Your task to perform on an android device: Search for pizza restaurants on Maps Image 0: 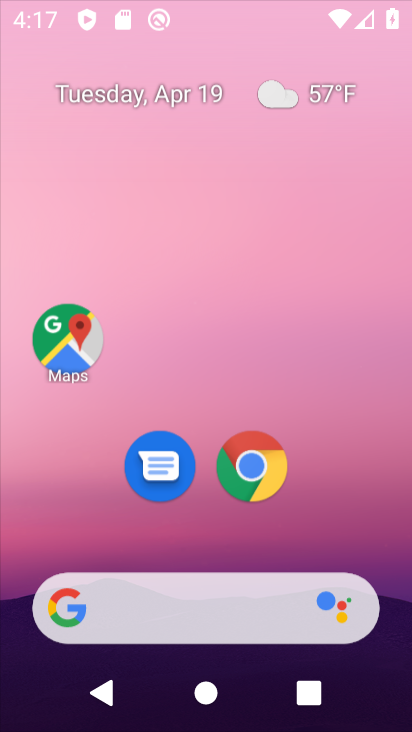
Step 0: click (261, 16)
Your task to perform on an android device: Search for pizza restaurants on Maps Image 1: 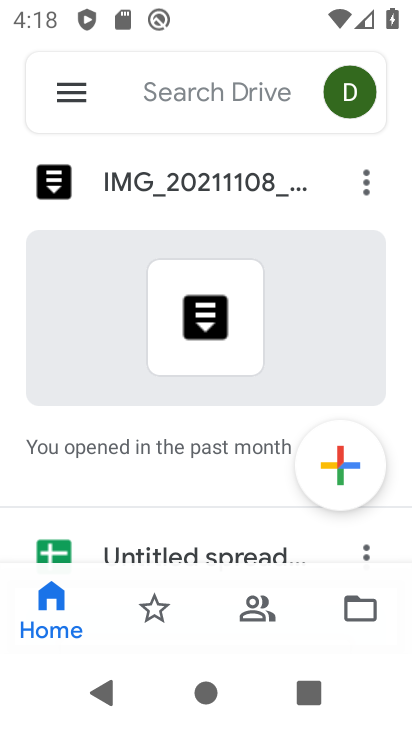
Step 1: press home button
Your task to perform on an android device: Search for pizza restaurants on Maps Image 2: 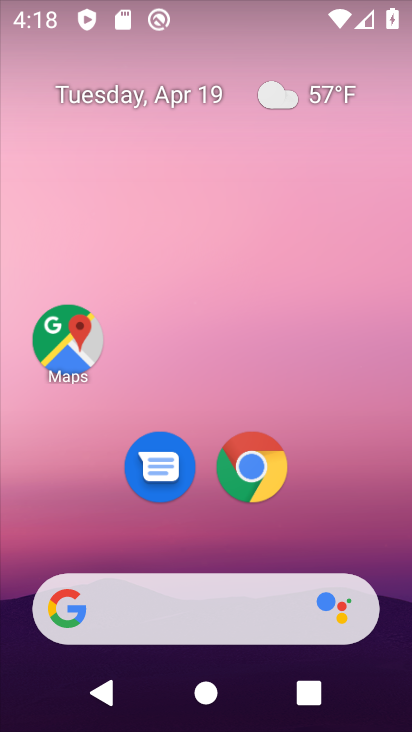
Step 2: click (76, 350)
Your task to perform on an android device: Search for pizza restaurants on Maps Image 3: 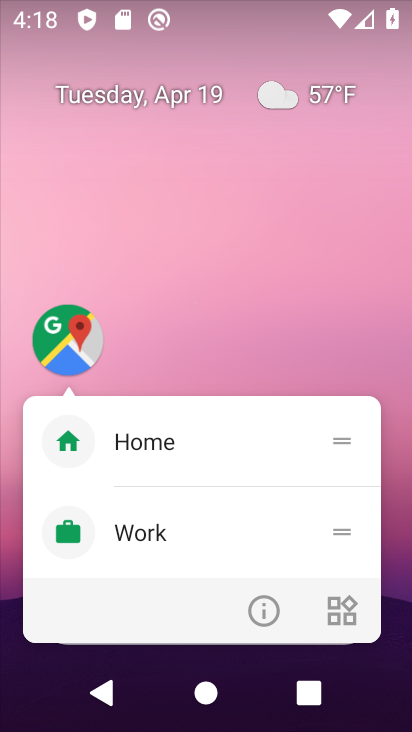
Step 3: click (75, 350)
Your task to perform on an android device: Search for pizza restaurants on Maps Image 4: 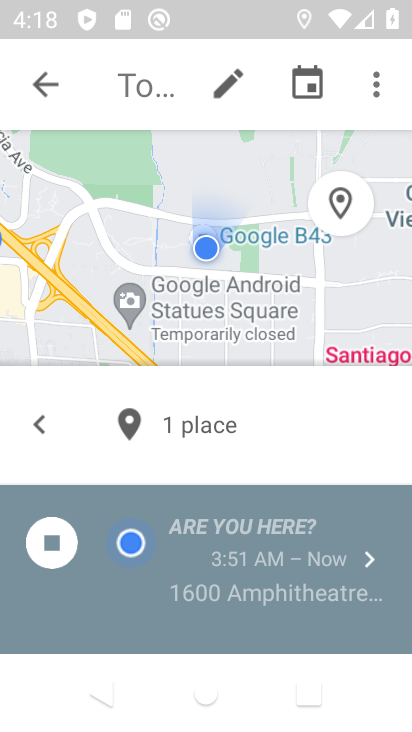
Step 4: click (52, 93)
Your task to perform on an android device: Search for pizza restaurants on Maps Image 5: 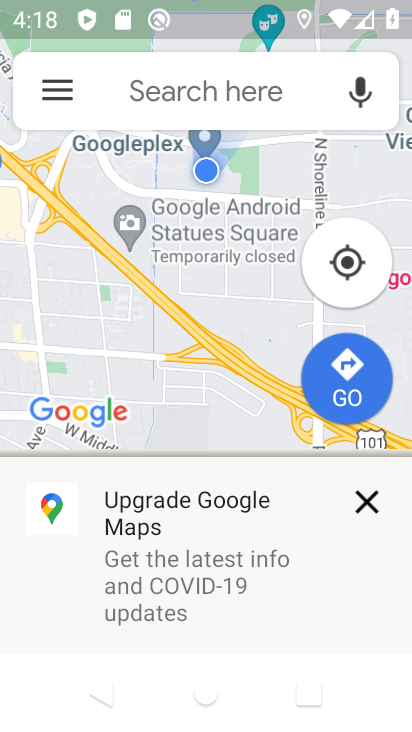
Step 5: click (139, 84)
Your task to perform on an android device: Search for pizza restaurants on Maps Image 6: 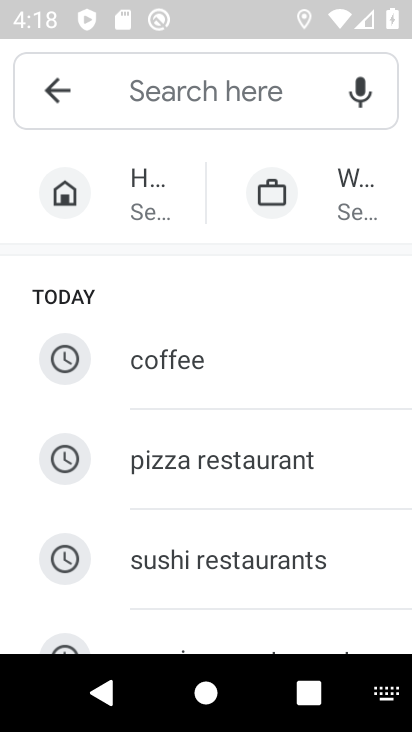
Step 6: click (216, 459)
Your task to perform on an android device: Search for pizza restaurants on Maps Image 7: 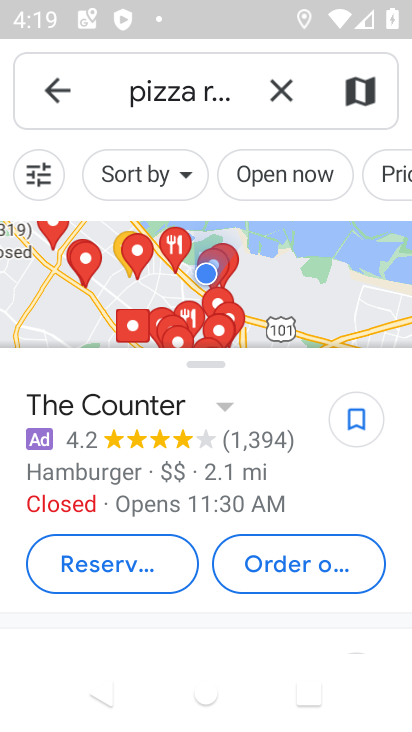
Step 7: task complete